Your task to perform on an android device: open wifi settings Image 0: 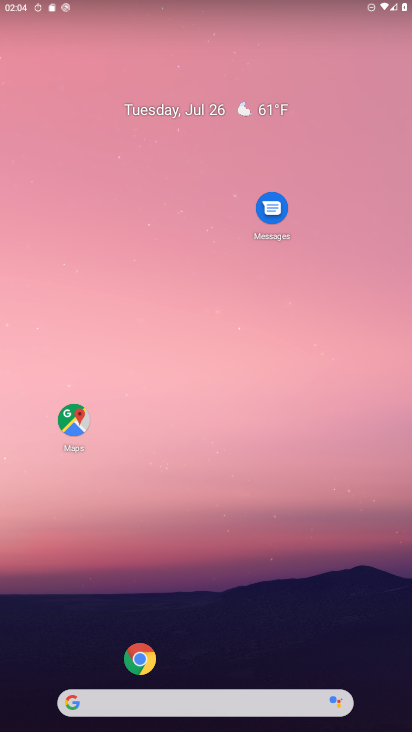
Step 0: drag from (41, 664) to (290, 112)
Your task to perform on an android device: open wifi settings Image 1: 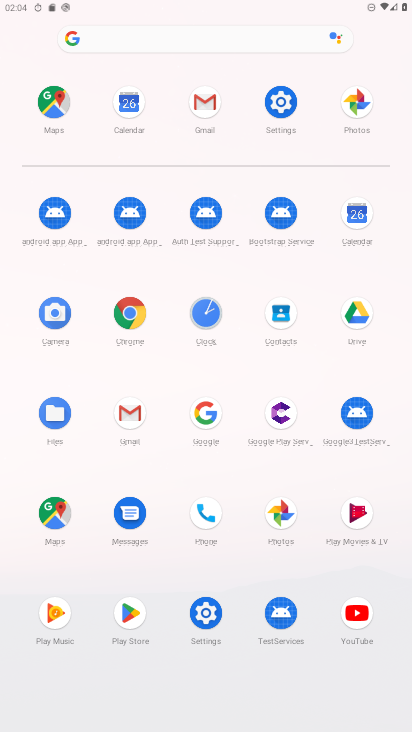
Step 1: click (215, 616)
Your task to perform on an android device: open wifi settings Image 2: 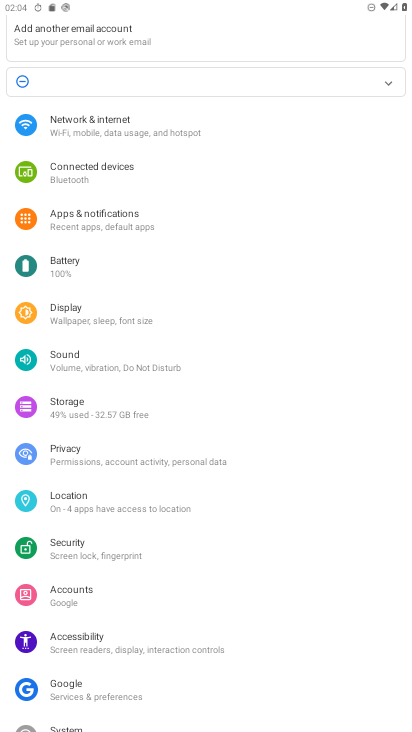
Step 2: click (69, 117)
Your task to perform on an android device: open wifi settings Image 3: 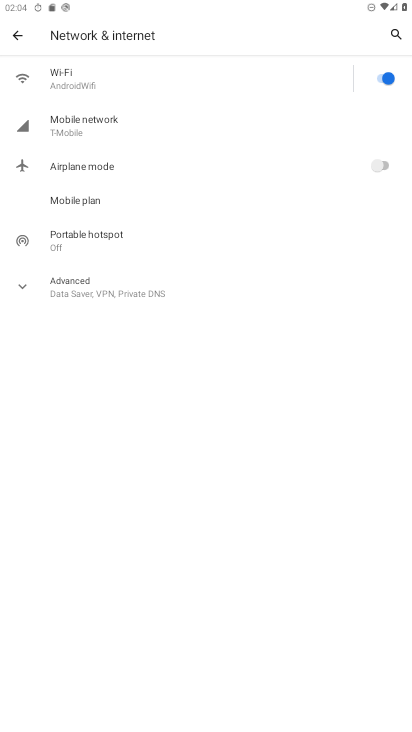
Step 3: task complete